Your task to perform on an android device: Open notification settings Image 0: 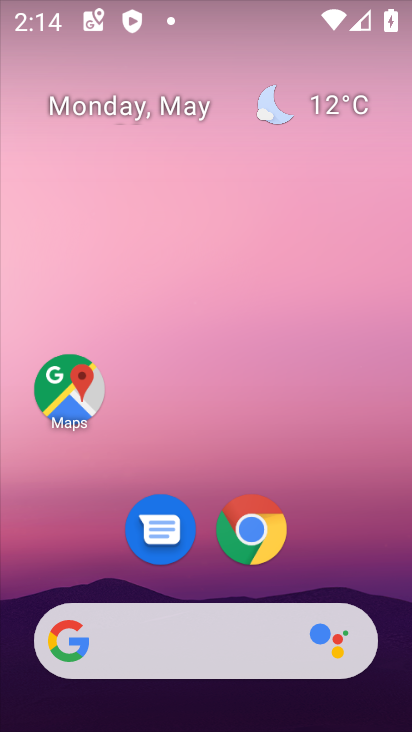
Step 0: drag from (387, 635) to (285, 146)
Your task to perform on an android device: Open notification settings Image 1: 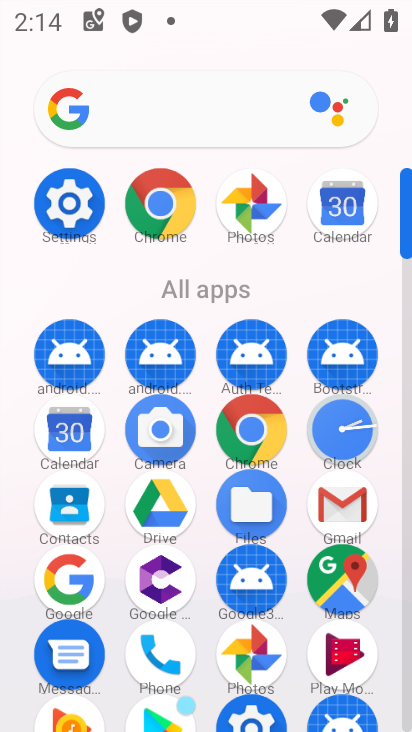
Step 1: click (406, 698)
Your task to perform on an android device: Open notification settings Image 2: 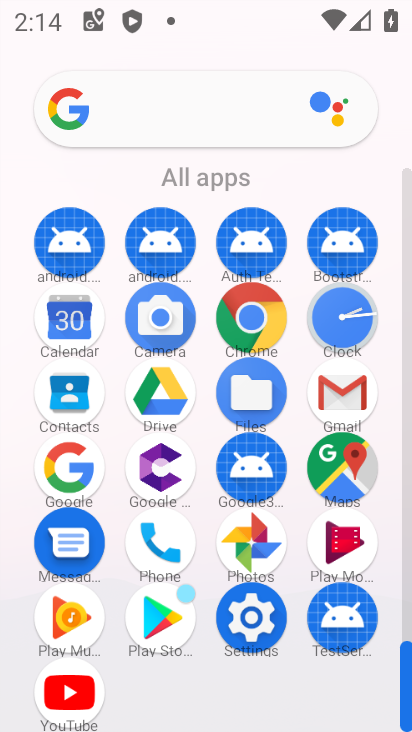
Step 2: click (252, 614)
Your task to perform on an android device: Open notification settings Image 3: 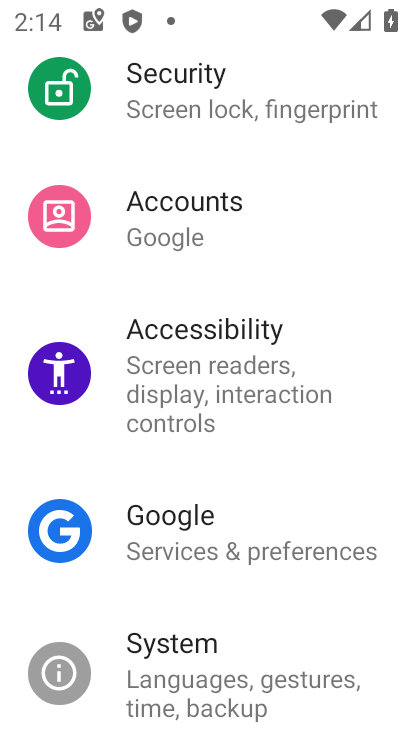
Step 3: drag from (335, 188) to (312, 524)
Your task to perform on an android device: Open notification settings Image 4: 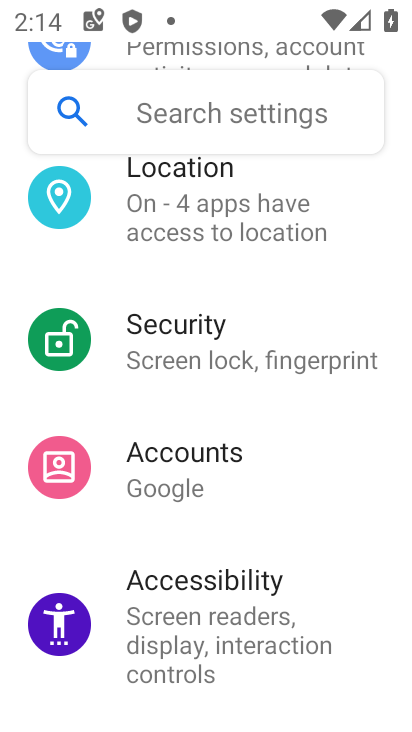
Step 4: drag from (321, 238) to (298, 503)
Your task to perform on an android device: Open notification settings Image 5: 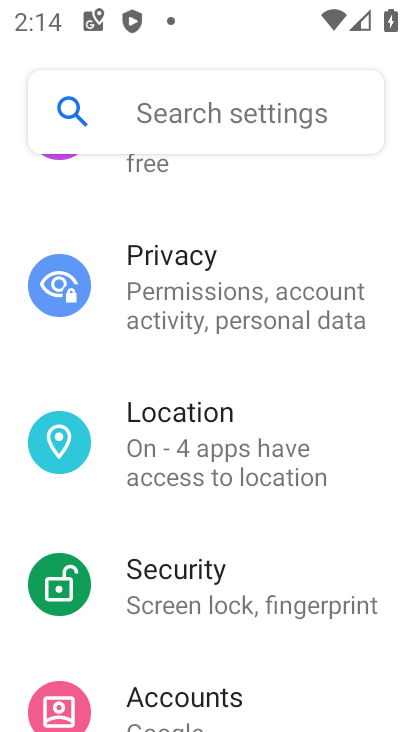
Step 5: drag from (321, 257) to (313, 520)
Your task to perform on an android device: Open notification settings Image 6: 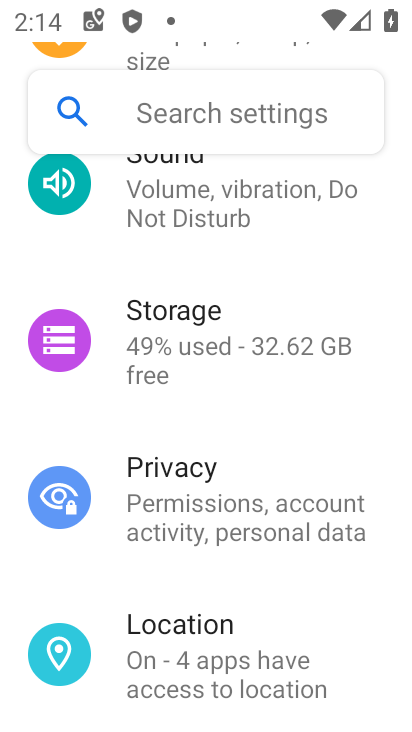
Step 6: drag from (347, 236) to (332, 514)
Your task to perform on an android device: Open notification settings Image 7: 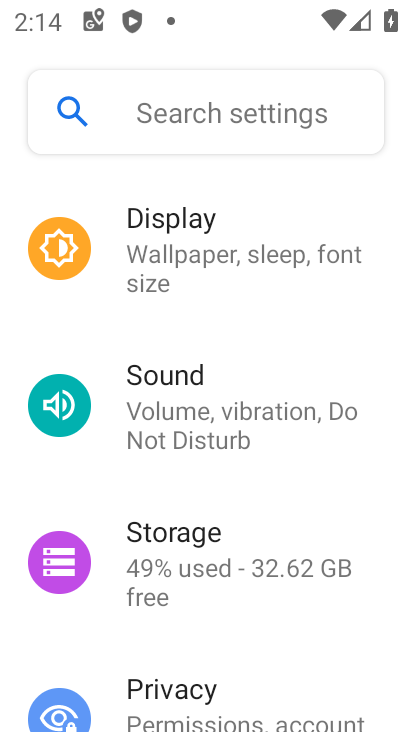
Step 7: drag from (345, 284) to (350, 563)
Your task to perform on an android device: Open notification settings Image 8: 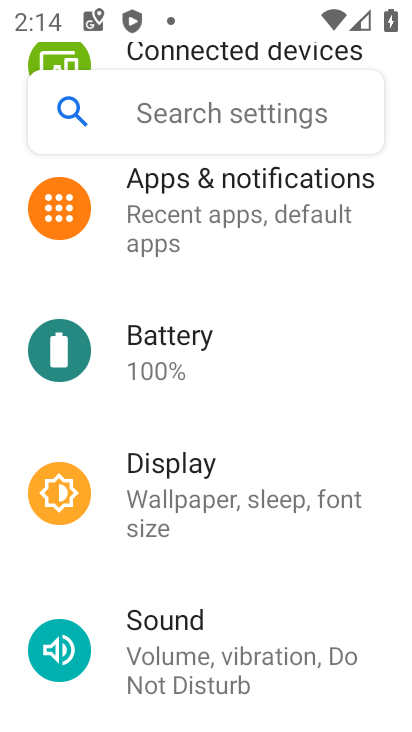
Step 8: drag from (363, 232) to (337, 504)
Your task to perform on an android device: Open notification settings Image 9: 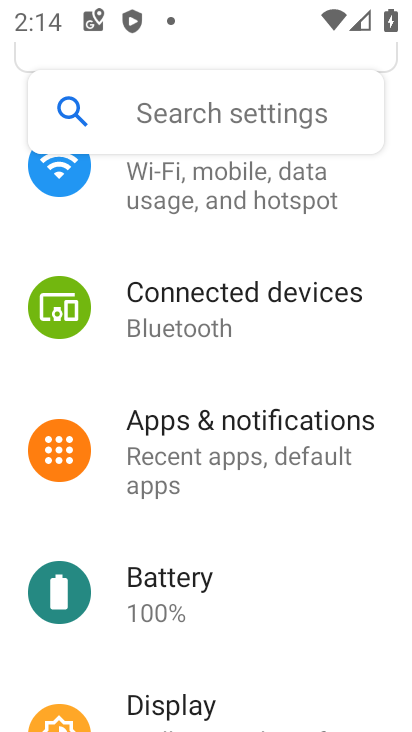
Step 9: click (163, 433)
Your task to perform on an android device: Open notification settings Image 10: 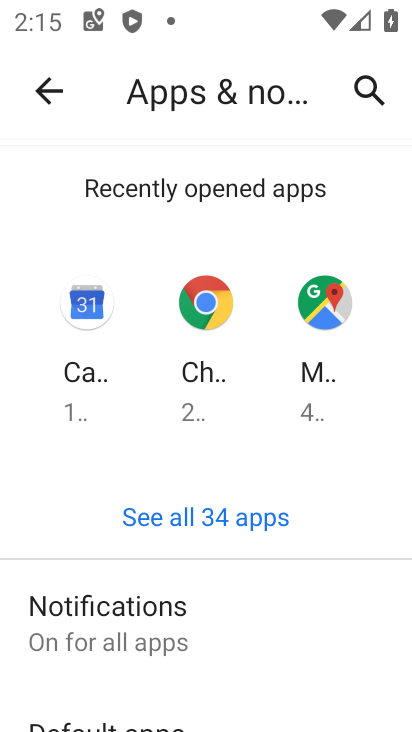
Step 10: drag from (287, 586) to (264, 249)
Your task to perform on an android device: Open notification settings Image 11: 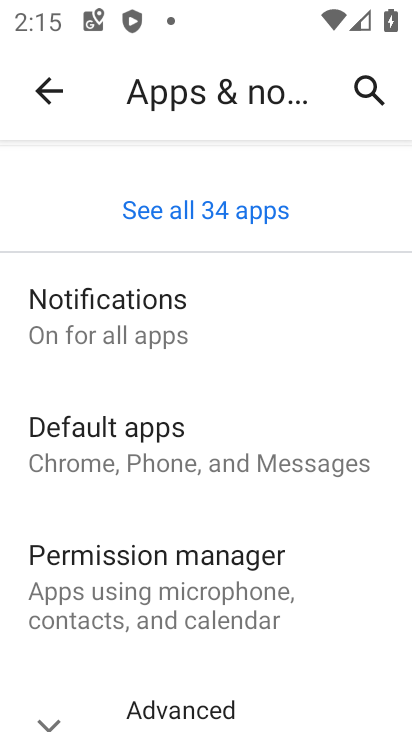
Step 11: click (53, 314)
Your task to perform on an android device: Open notification settings Image 12: 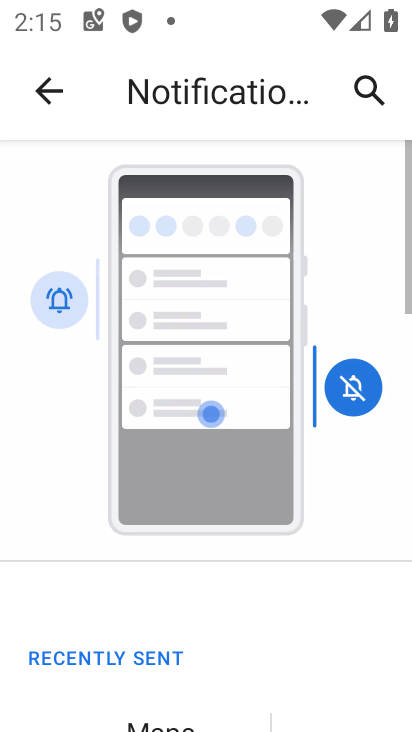
Step 12: drag from (250, 650) to (250, 187)
Your task to perform on an android device: Open notification settings Image 13: 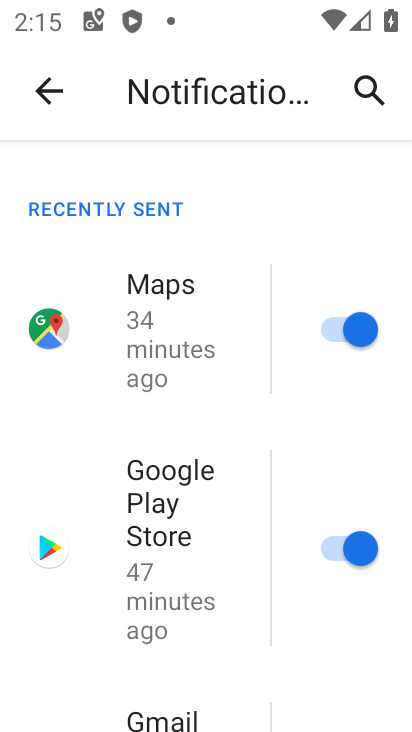
Step 13: drag from (301, 666) to (217, 104)
Your task to perform on an android device: Open notification settings Image 14: 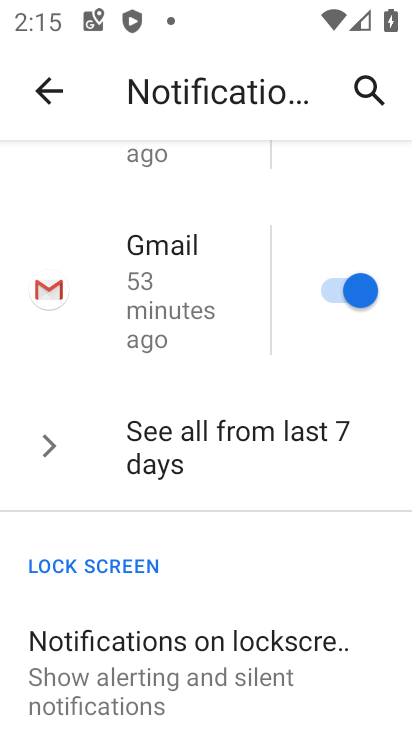
Step 14: drag from (268, 634) to (258, 218)
Your task to perform on an android device: Open notification settings Image 15: 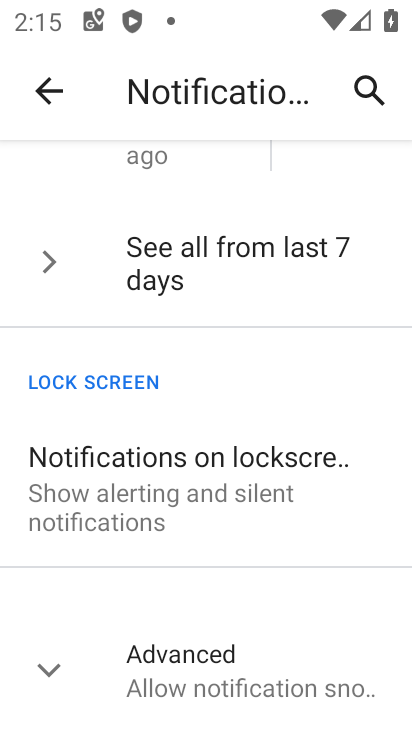
Step 15: click (47, 681)
Your task to perform on an android device: Open notification settings Image 16: 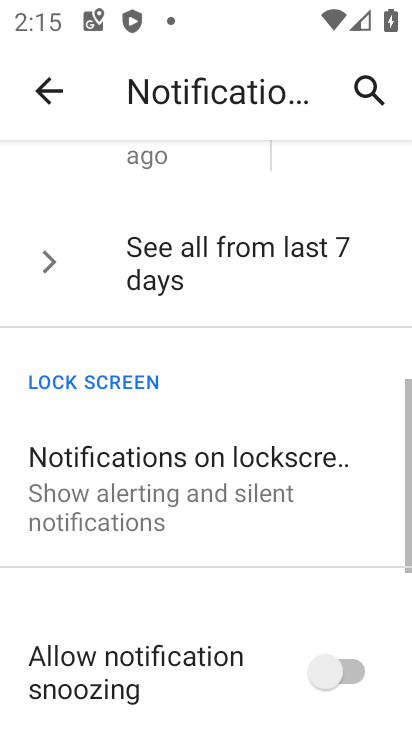
Step 16: task complete